Your task to perform on an android device: turn off notifications settings in the gmail app Image 0: 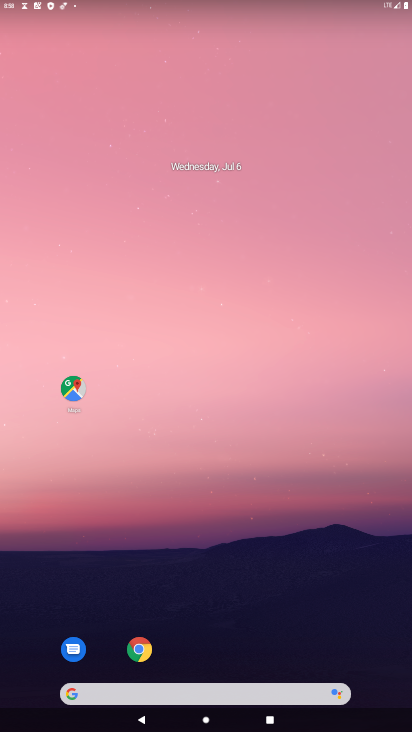
Step 0: press home button
Your task to perform on an android device: turn off notifications settings in the gmail app Image 1: 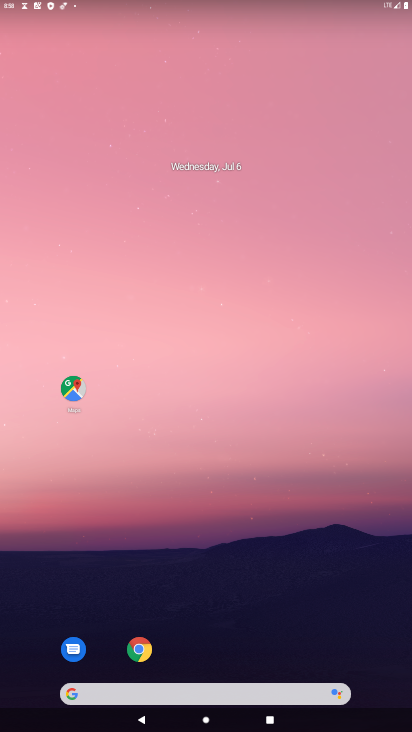
Step 1: drag from (218, 653) to (230, 35)
Your task to perform on an android device: turn off notifications settings in the gmail app Image 2: 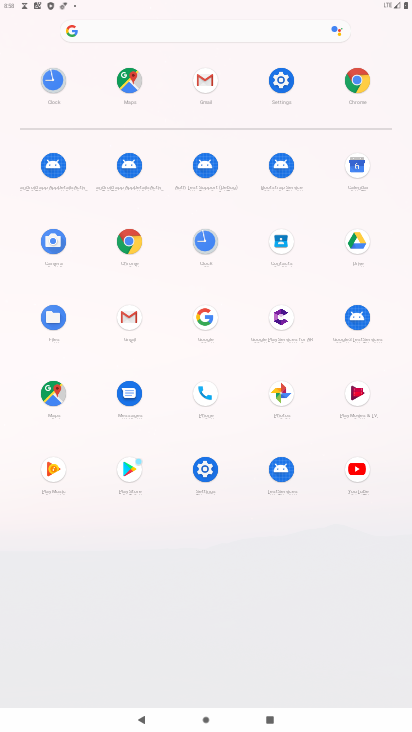
Step 2: click (202, 78)
Your task to perform on an android device: turn off notifications settings in the gmail app Image 3: 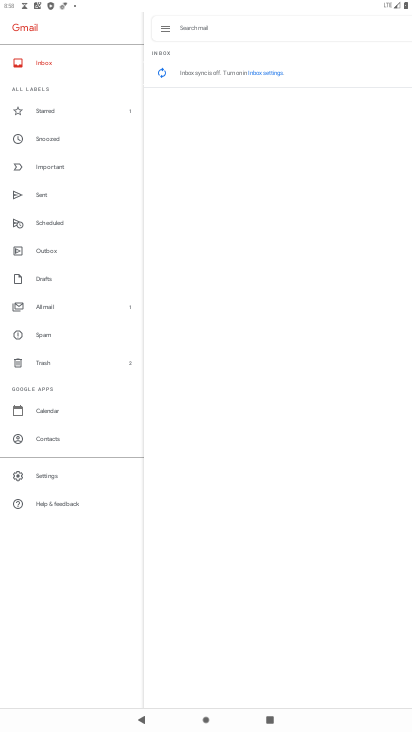
Step 3: click (65, 475)
Your task to perform on an android device: turn off notifications settings in the gmail app Image 4: 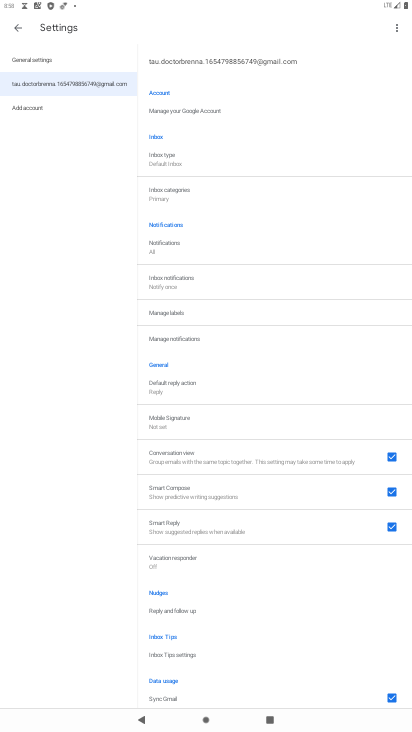
Step 4: click (41, 60)
Your task to perform on an android device: turn off notifications settings in the gmail app Image 5: 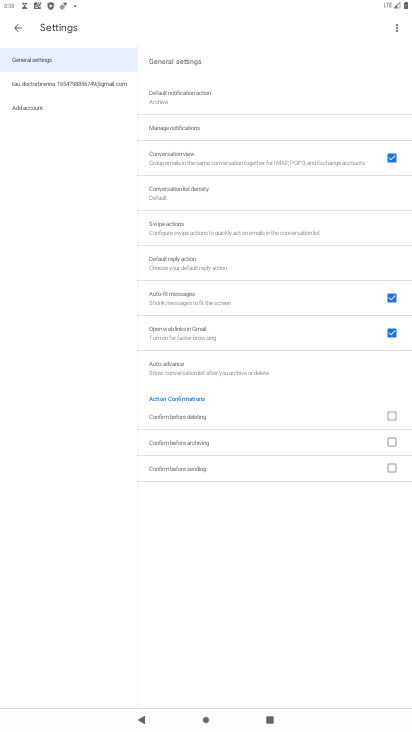
Step 5: click (204, 125)
Your task to perform on an android device: turn off notifications settings in the gmail app Image 6: 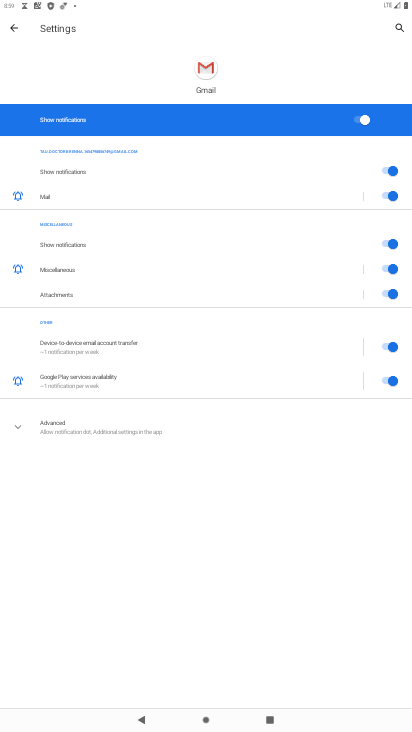
Step 6: click (355, 123)
Your task to perform on an android device: turn off notifications settings in the gmail app Image 7: 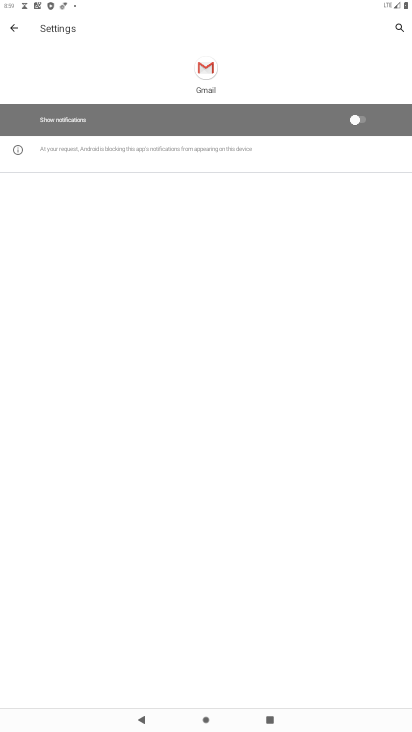
Step 7: task complete